Your task to perform on an android device: toggle pop-ups in chrome Image 0: 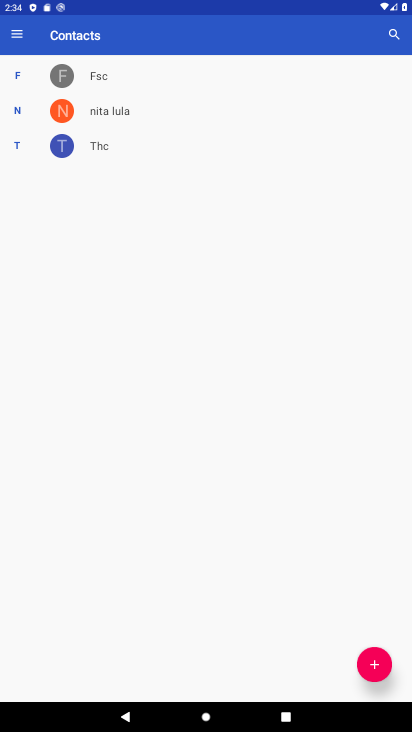
Step 0: press home button
Your task to perform on an android device: toggle pop-ups in chrome Image 1: 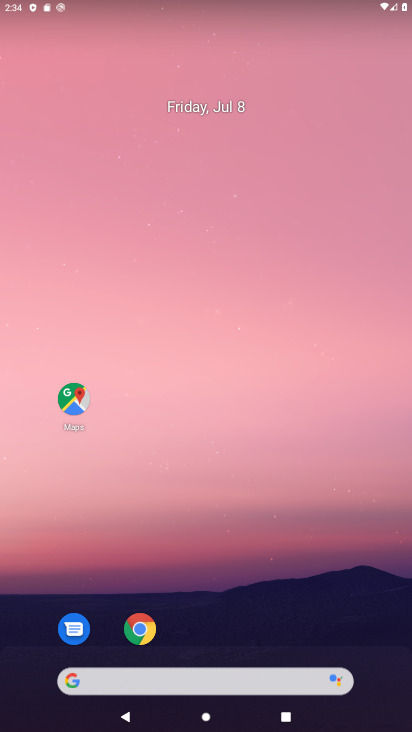
Step 1: drag from (194, 668) to (297, 191)
Your task to perform on an android device: toggle pop-ups in chrome Image 2: 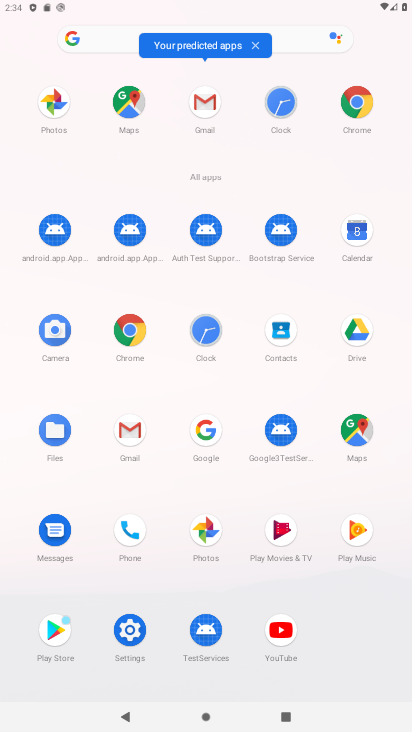
Step 2: click (131, 345)
Your task to perform on an android device: toggle pop-ups in chrome Image 3: 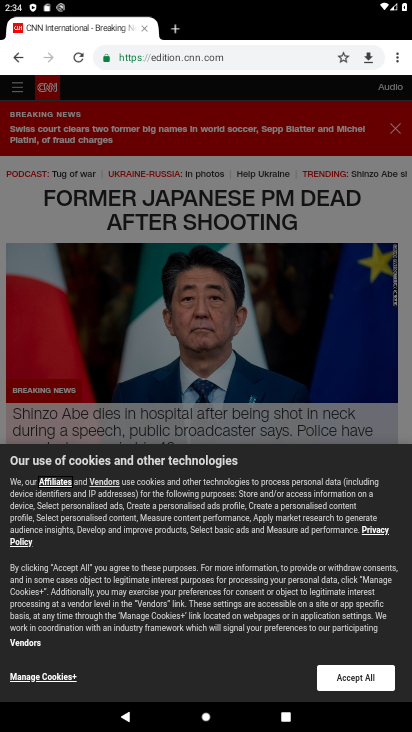
Step 3: drag from (390, 56) to (326, 349)
Your task to perform on an android device: toggle pop-ups in chrome Image 4: 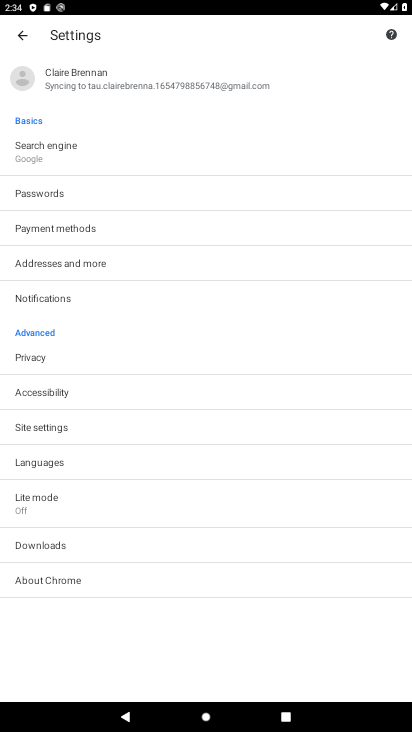
Step 4: click (84, 432)
Your task to perform on an android device: toggle pop-ups in chrome Image 5: 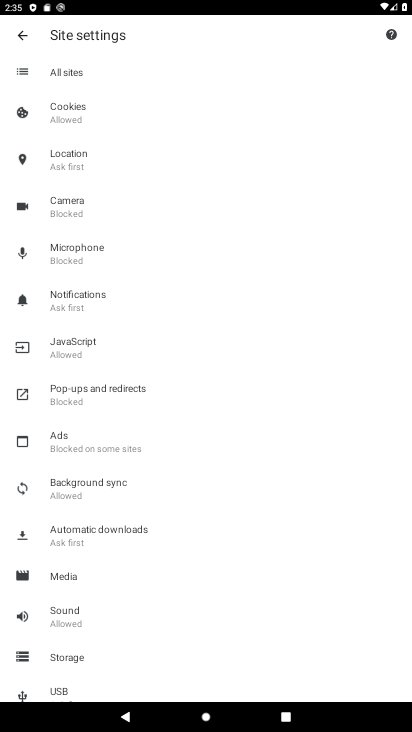
Step 5: click (168, 401)
Your task to perform on an android device: toggle pop-ups in chrome Image 6: 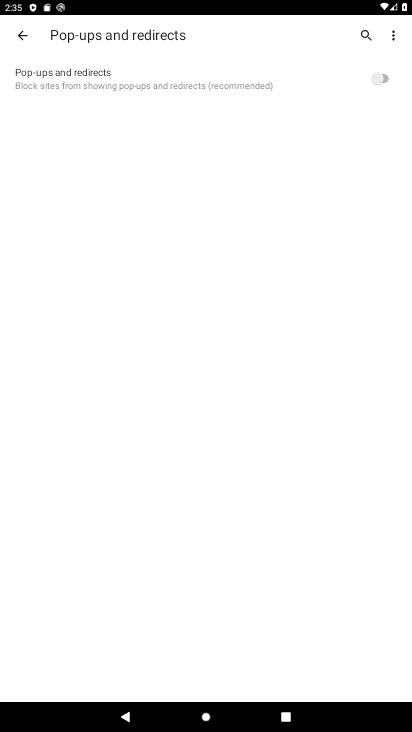
Step 6: click (407, 69)
Your task to perform on an android device: toggle pop-ups in chrome Image 7: 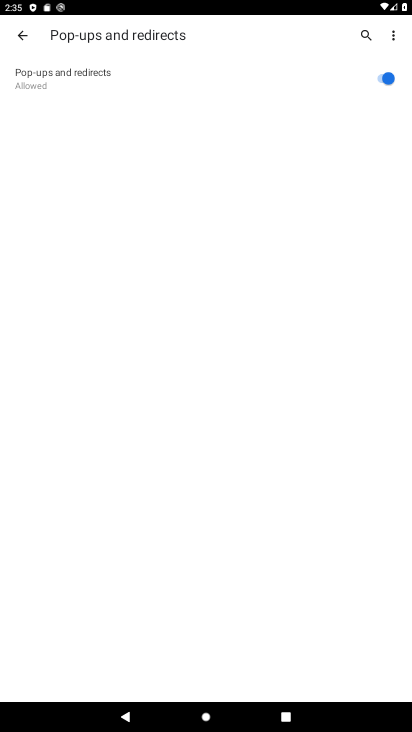
Step 7: task complete